Your task to perform on an android device: Go to settings Image 0: 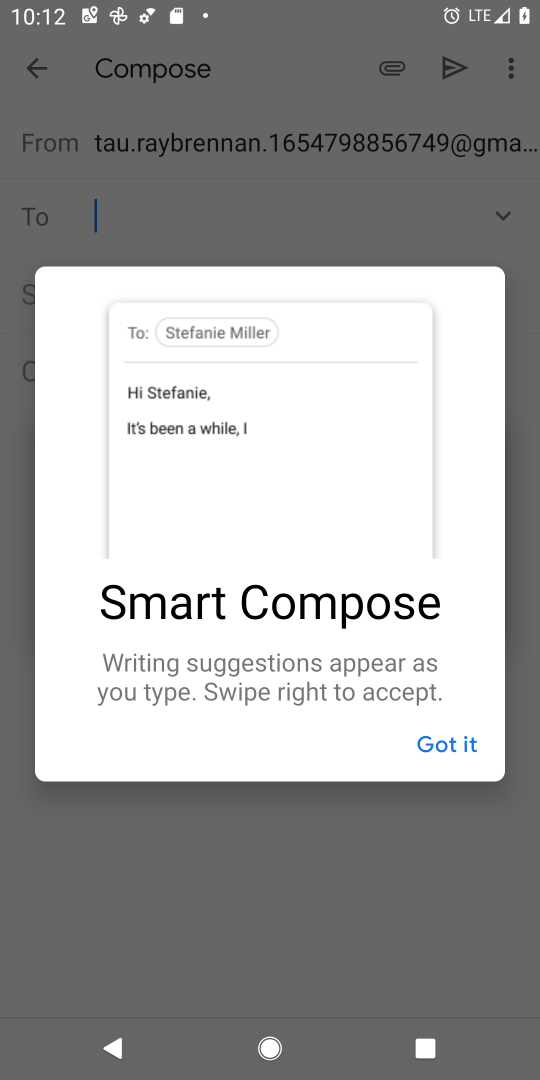
Step 0: press home button
Your task to perform on an android device: Go to settings Image 1: 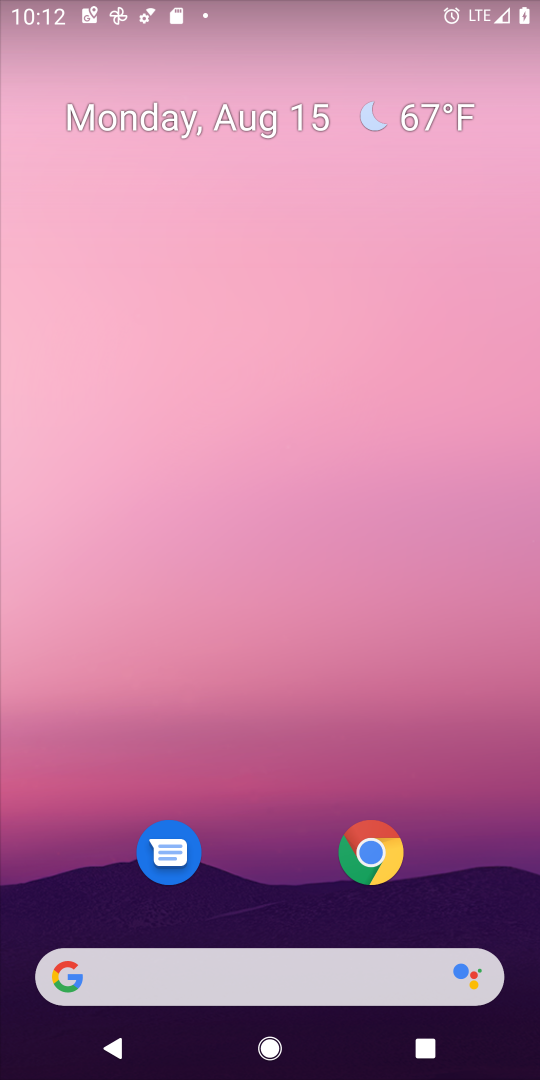
Step 1: drag from (300, 1027) to (376, 65)
Your task to perform on an android device: Go to settings Image 2: 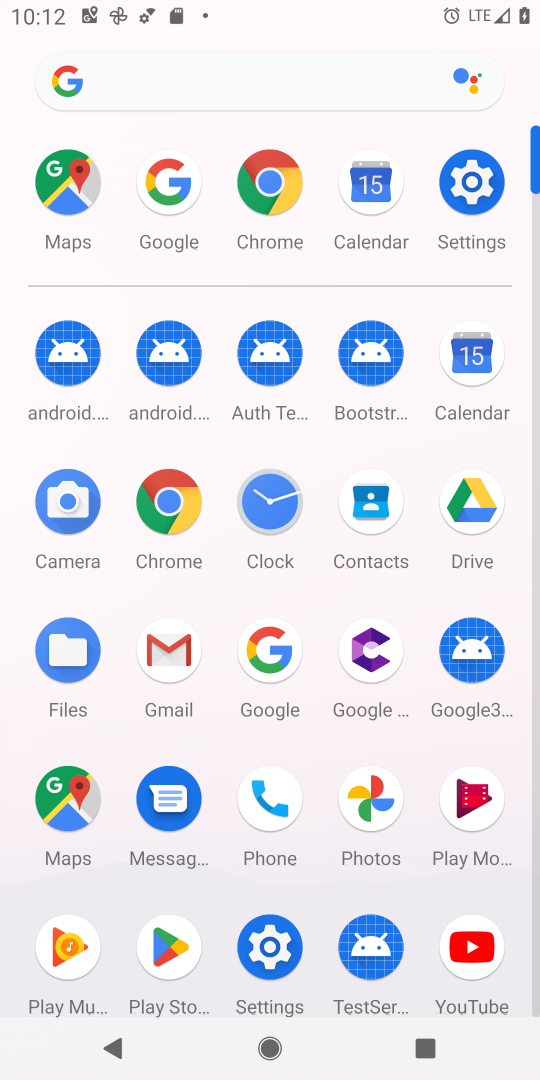
Step 2: click (472, 183)
Your task to perform on an android device: Go to settings Image 3: 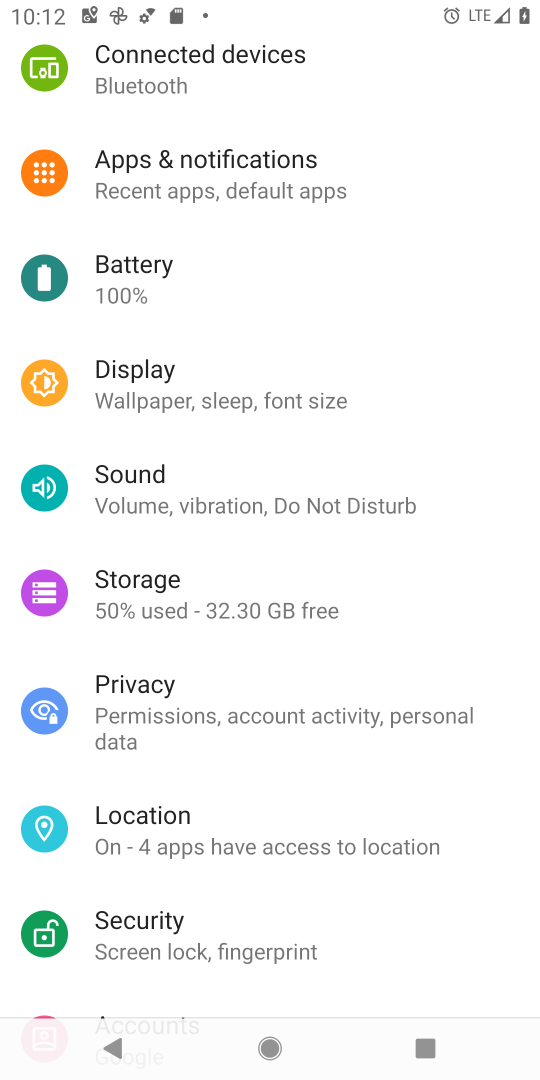
Step 3: task complete